Your task to perform on an android device: Open the phone app and click the voicemail tab. Image 0: 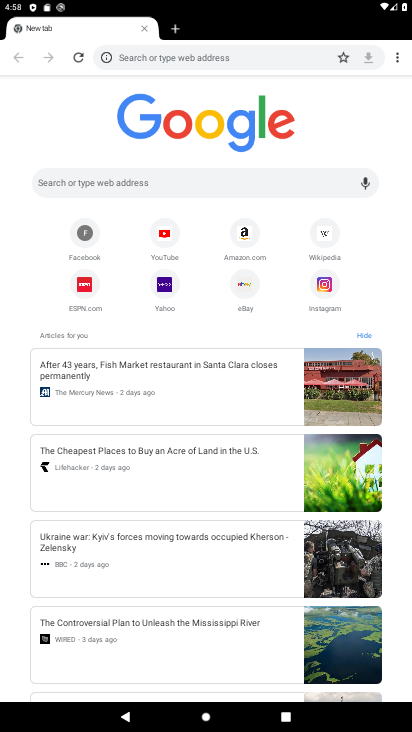
Step 0: press home button
Your task to perform on an android device: Open the phone app and click the voicemail tab. Image 1: 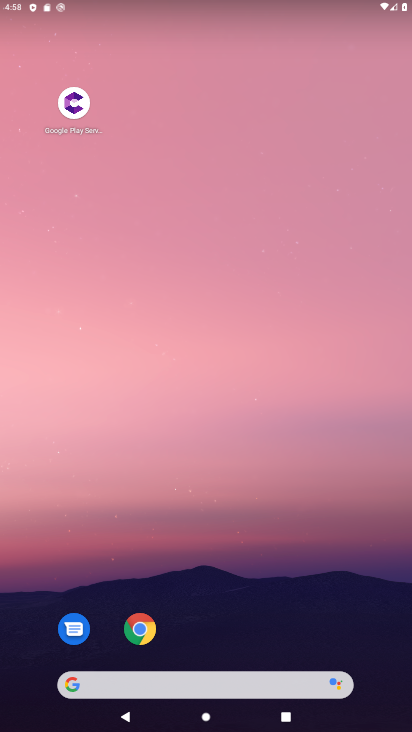
Step 1: drag from (201, 515) to (253, 291)
Your task to perform on an android device: Open the phone app and click the voicemail tab. Image 2: 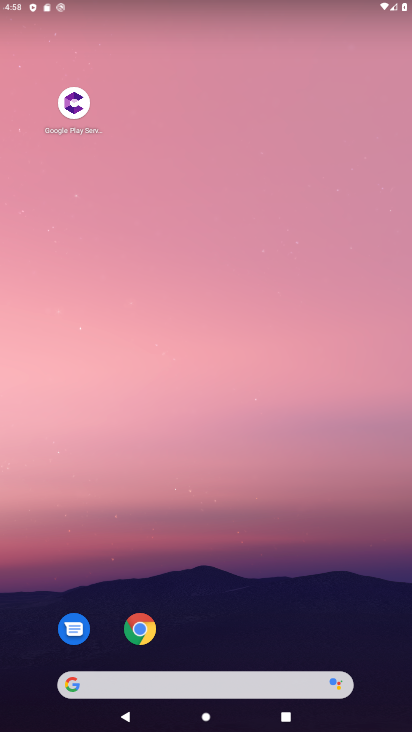
Step 2: drag from (238, 378) to (228, 122)
Your task to perform on an android device: Open the phone app and click the voicemail tab. Image 3: 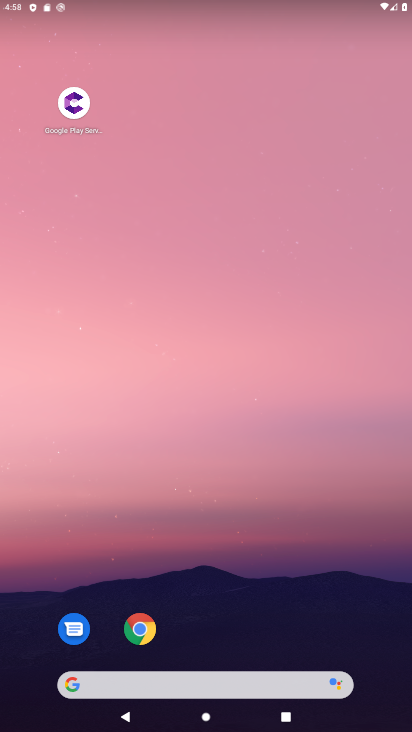
Step 3: drag from (280, 172) to (192, 57)
Your task to perform on an android device: Open the phone app and click the voicemail tab. Image 4: 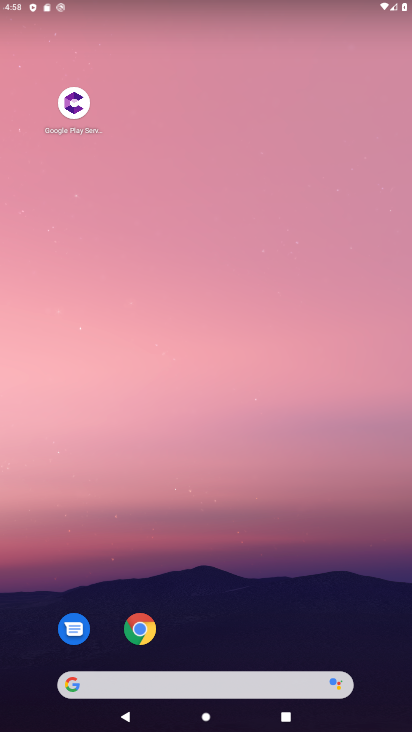
Step 4: drag from (221, 641) to (384, 416)
Your task to perform on an android device: Open the phone app and click the voicemail tab. Image 5: 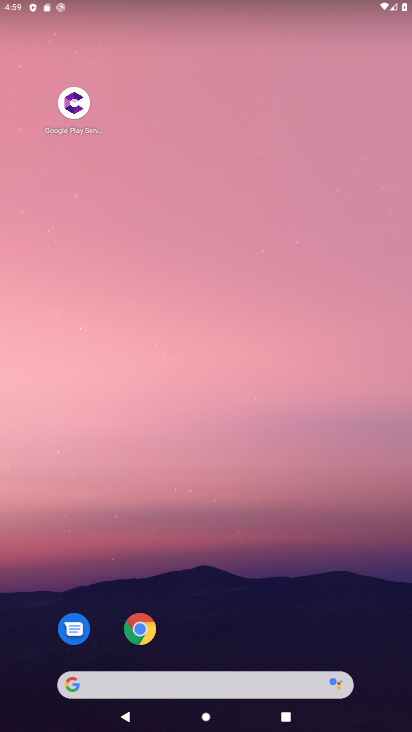
Step 5: drag from (305, 561) to (307, 55)
Your task to perform on an android device: Open the phone app and click the voicemail tab. Image 6: 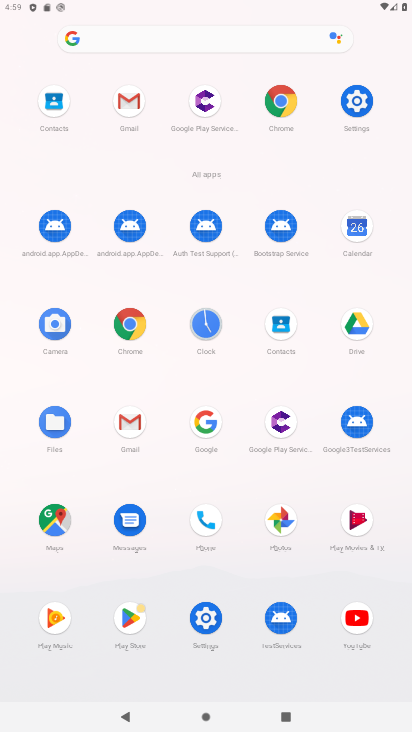
Step 6: click (206, 529)
Your task to perform on an android device: Open the phone app and click the voicemail tab. Image 7: 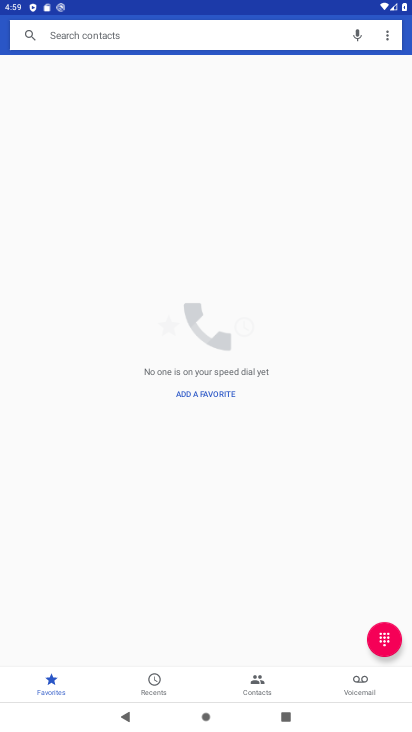
Step 7: click (358, 691)
Your task to perform on an android device: Open the phone app and click the voicemail tab. Image 8: 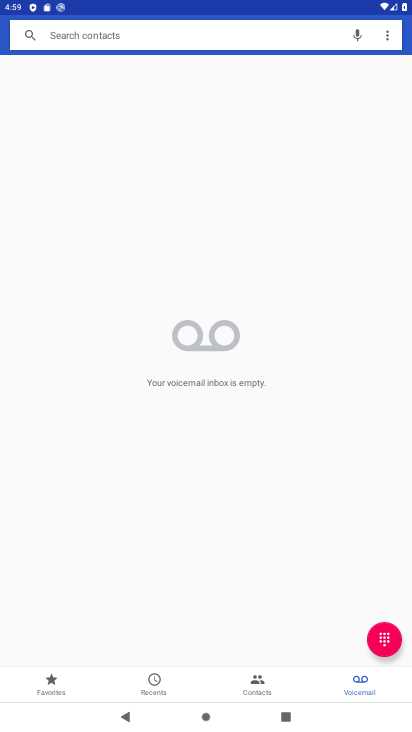
Step 8: click (358, 691)
Your task to perform on an android device: Open the phone app and click the voicemail tab. Image 9: 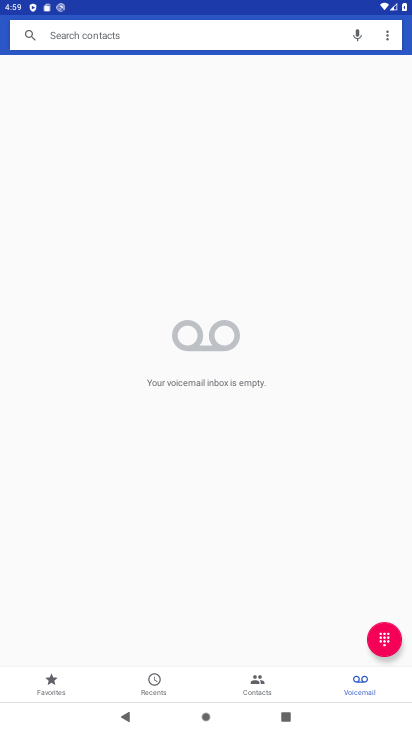
Step 9: task complete